Your task to perform on an android device: Open Google Chrome and click the shortcut for Amazon.com Image 0: 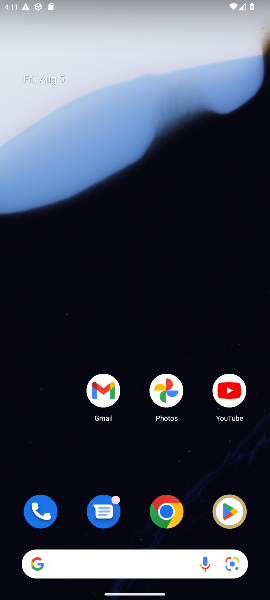
Step 0: click (179, 517)
Your task to perform on an android device: Open Google Chrome and click the shortcut for Amazon.com Image 1: 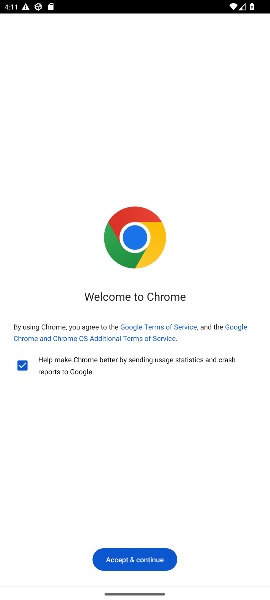
Step 1: click (161, 546)
Your task to perform on an android device: Open Google Chrome and click the shortcut for Amazon.com Image 2: 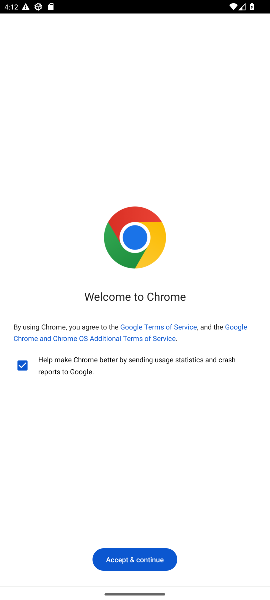
Step 2: click (124, 561)
Your task to perform on an android device: Open Google Chrome and click the shortcut for Amazon.com Image 3: 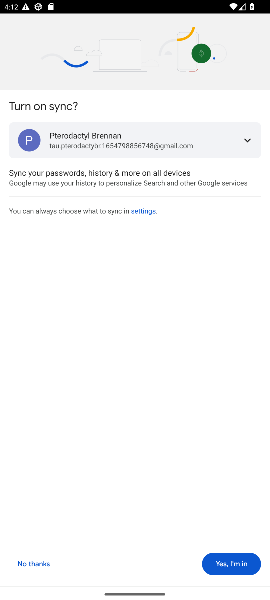
Step 3: click (222, 558)
Your task to perform on an android device: Open Google Chrome and click the shortcut for Amazon.com Image 4: 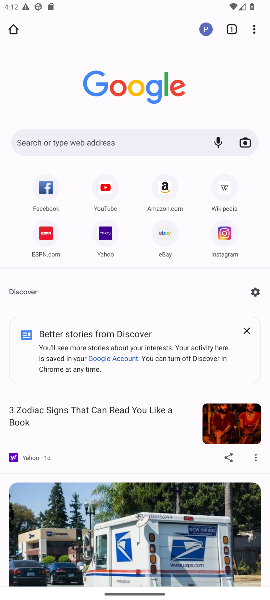
Step 4: click (165, 180)
Your task to perform on an android device: Open Google Chrome and click the shortcut for Amazon.com Image 5: 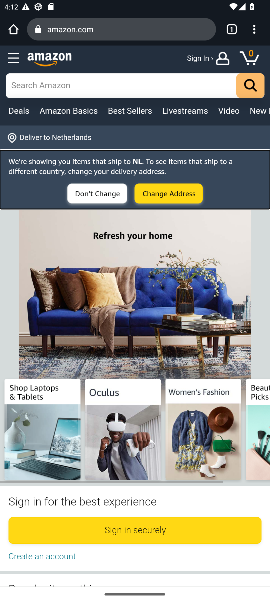
Step 5: task complete